Your task to perform on an android device: check data usage Image 0: 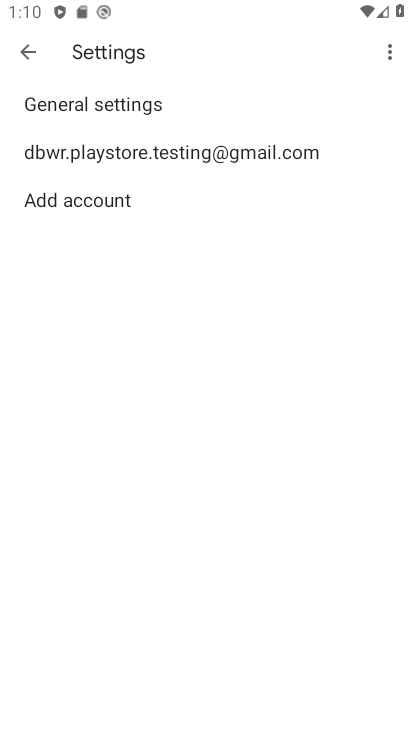
Step 0: press home button
Your task to perform on an android device: check data usage Image 1: 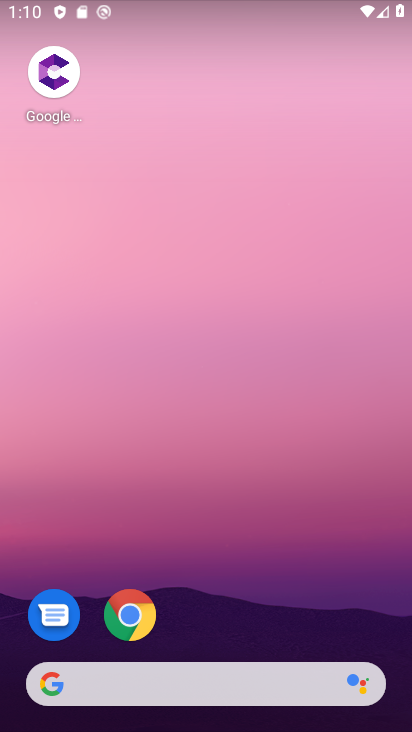
Step 1: drag from (216, 606) to (177, 20)
Your task to perform on an android device: check data usage Image 2: 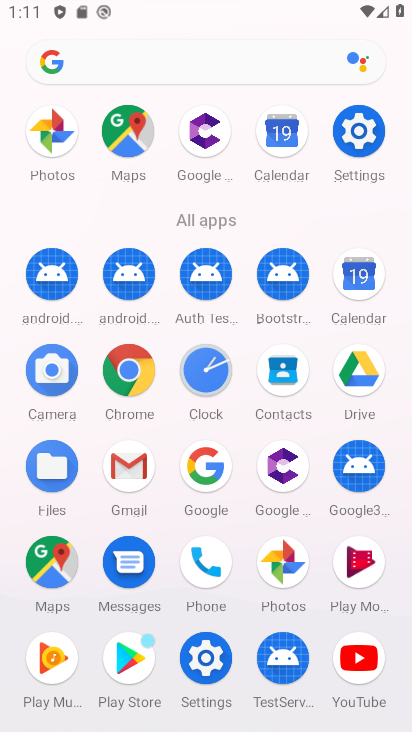
Step 2: click (364, 135)
Your task to perform on an android device: check data usage Image 3: 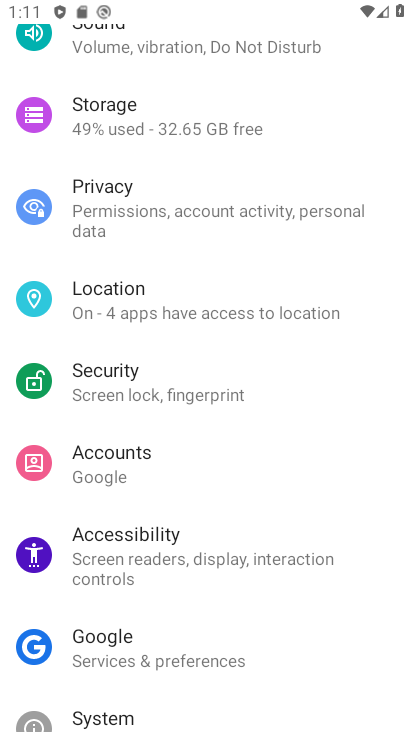
Step 3: drag from (188, 148) to (255, 651)
Your task to perform on an android device: check data usage Image 4: 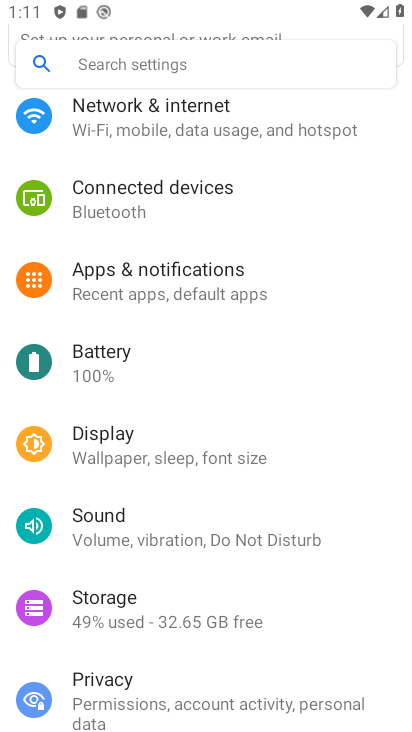
Step 4: drag from (272, 187) to (311, 623)
Your task to perform on an android device: check data usage Image 5: 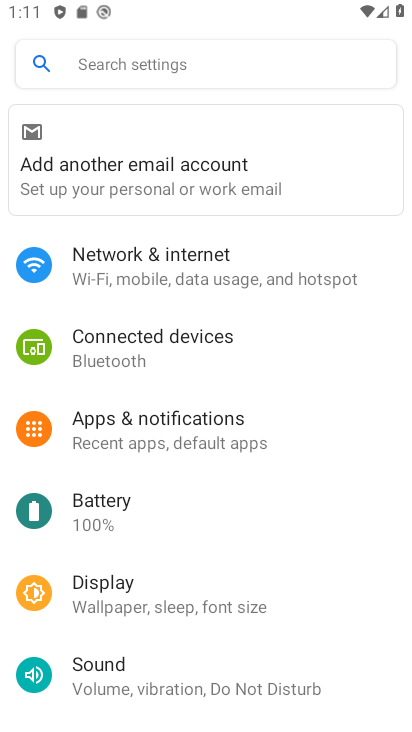
Step 5: click (158, 262)
Your task to perform on an android device: check data usage Image 6: 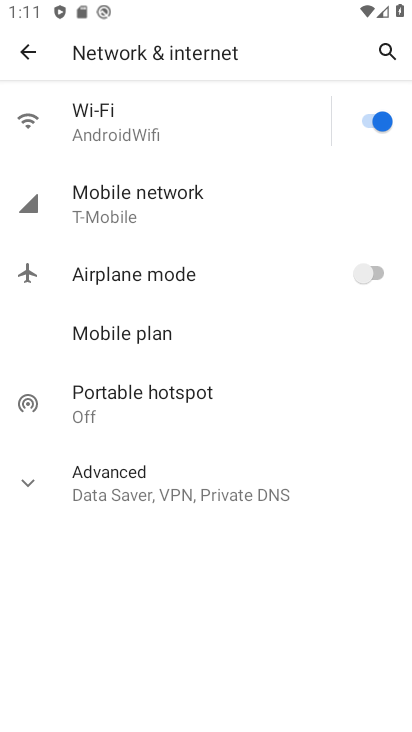
Step 6: click (139, 199)
Your task to perform on an android device: check data usage Image 7: 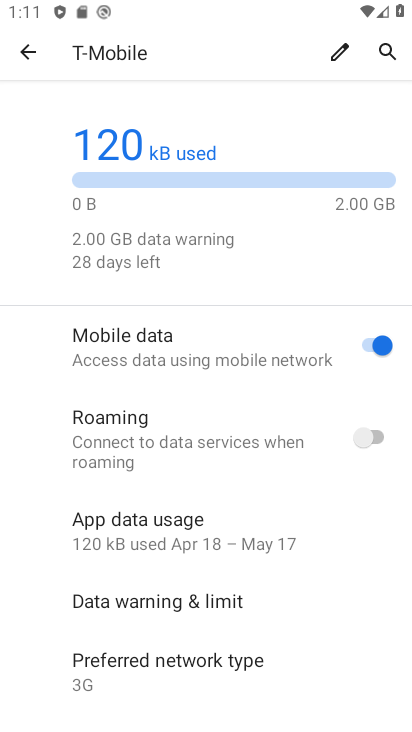
Step 7: task complete